Your task to perform on an android device: turn on notifications settings in the gmail app Image 0: 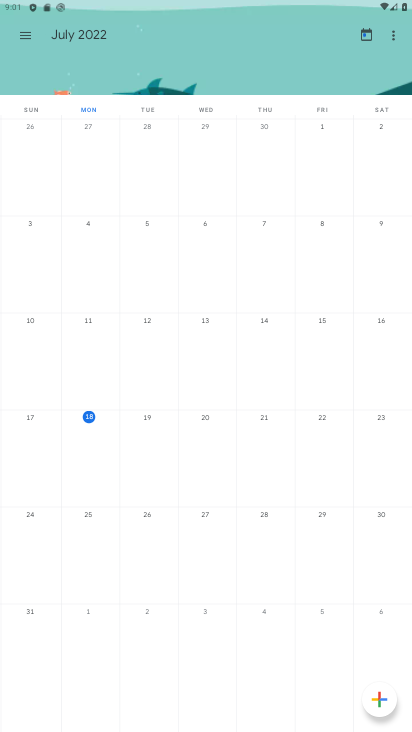
Step 0: press home button
Your task to perform on an android device: turn on notifications settings in the gmail app Image 1: 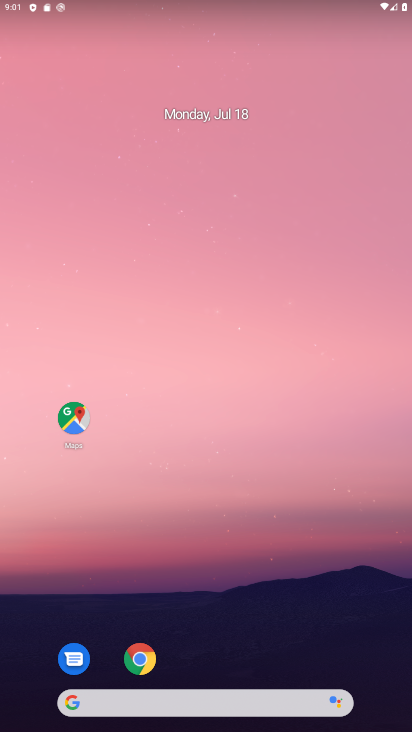
Step 1: drag from (322, 664) to (382, 112)
Your task to perform on an android device: turn on notifications settings in the gmail app Image 2: 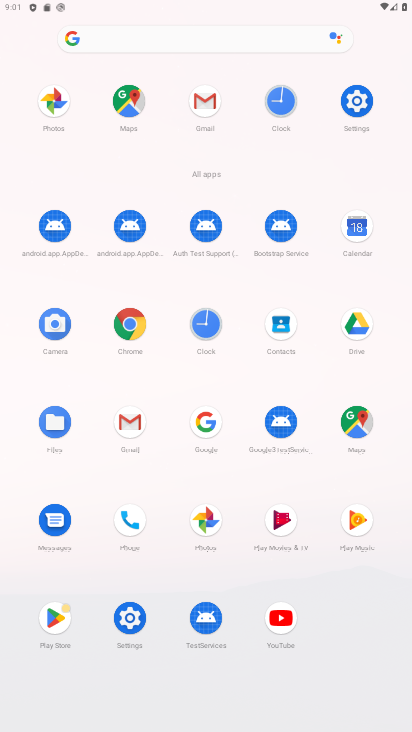
Step 2: click (140, 429)
Your task to perform on an android device: turn on notifications settings in the gmail app Image 3: 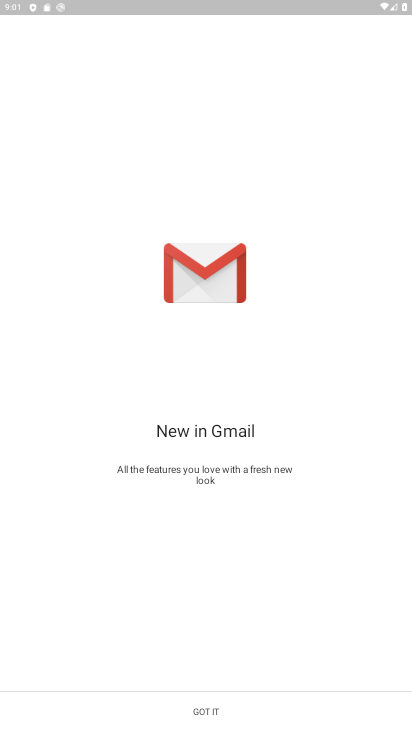
Step 3: click (204, 705)
Your task to perform on an android device: turn on notifications settings in the gmail app Image 4: 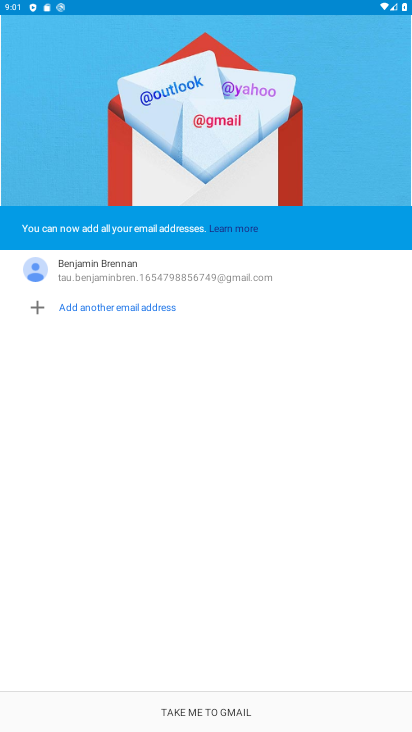
Step 4: click (204, 705)
Your task to perform on an android device: turn on notifications settings in the gmail app Image 5: 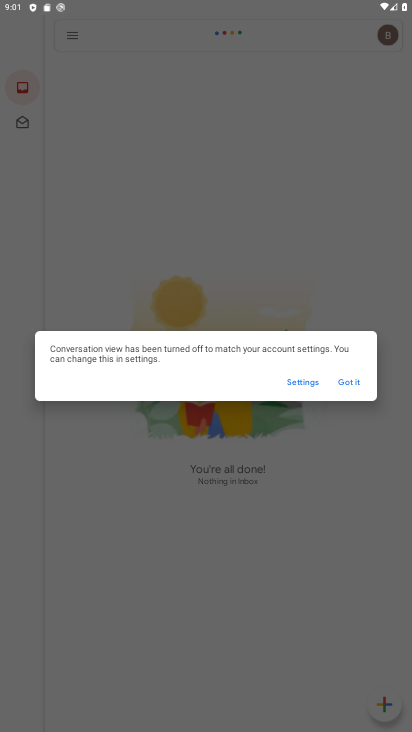
Step 5: click (351, 378)
Your task to perform on an android device: turn on notifications settings in the gmail app Image 6: 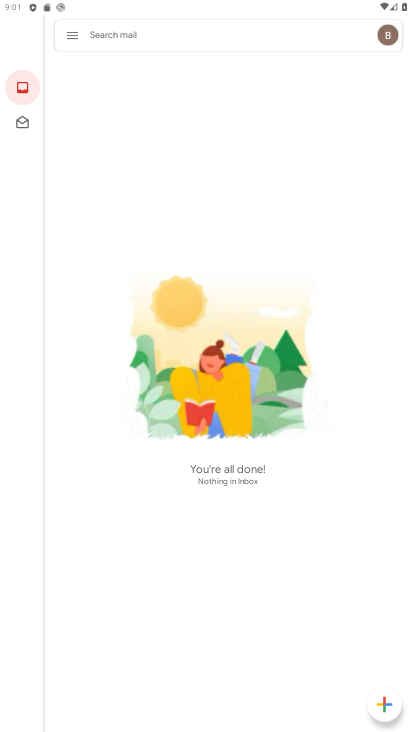
Step 6: click (78, 39)
Your task to perform on an android device: turn on notifications settings in the gmail app Image 7: 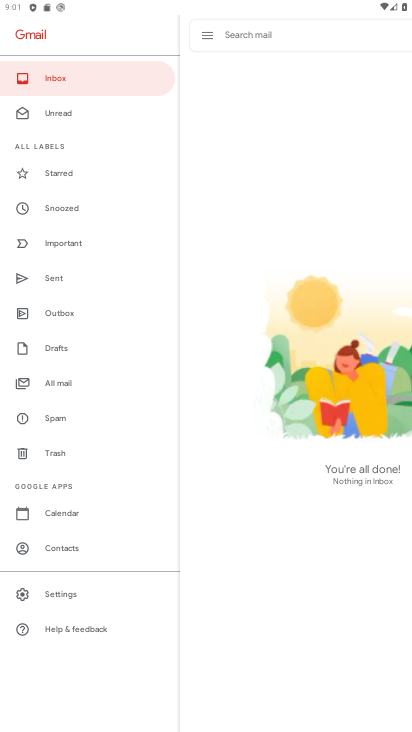
Step 7: click (72, 588)
Your task to perform on an android device: turn on notifications settings in the gmail app Image 8: 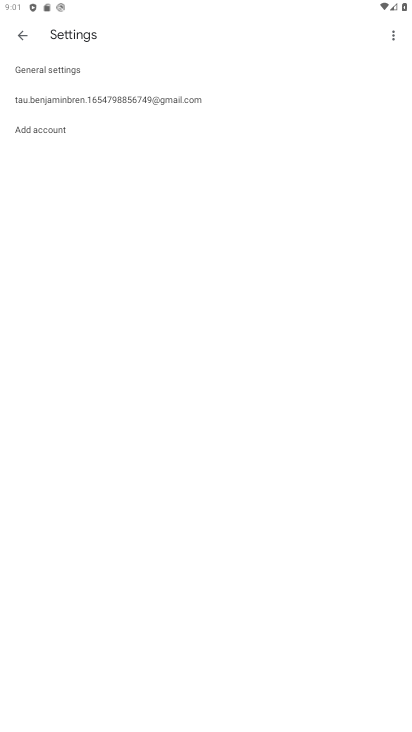
Step 8: click (172, 102)
Your task to perform on an android device: turn on notifications settings in the gmail app Image 9: 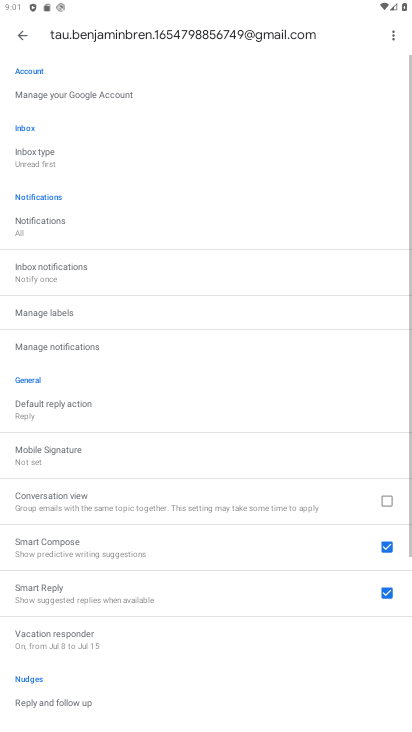
Step 9: click (93, 345)
Your task to perform on an android device: turn on notifications settings in the gmail app Image 10: 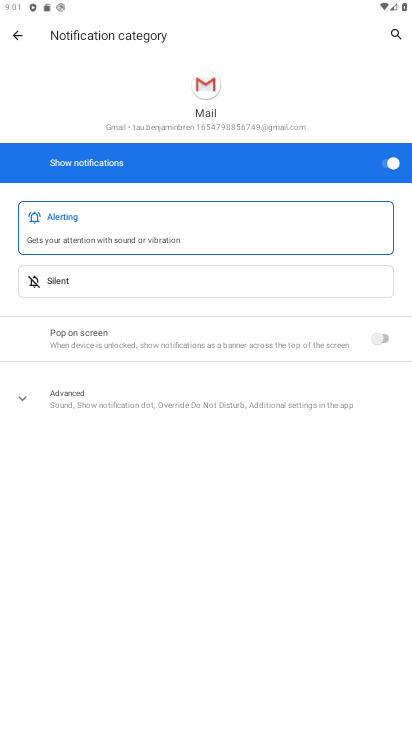
Step 10: task complete